Your task to perform on an android device: move an email to a new category in the gmail app Image 0: 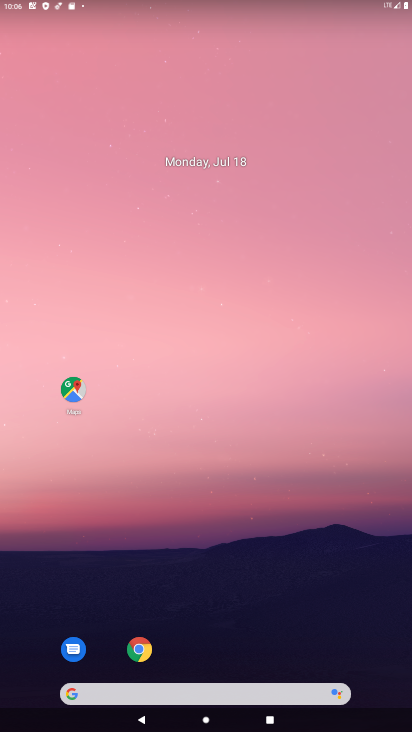
Step 0: drag from (192, 718) to (242, 5)
Your task to perform on an android device: move an email to a new category in the gmail app Image 1: 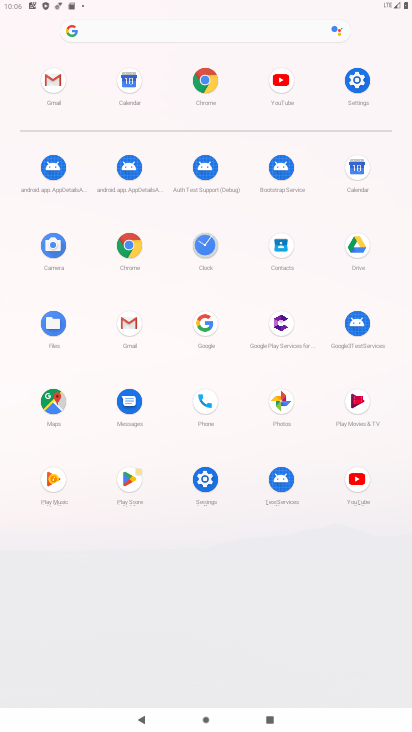
Step 1: click (58, 84)
Your task to perform on an android device: move an email to a new category in the gmail app Image 2: 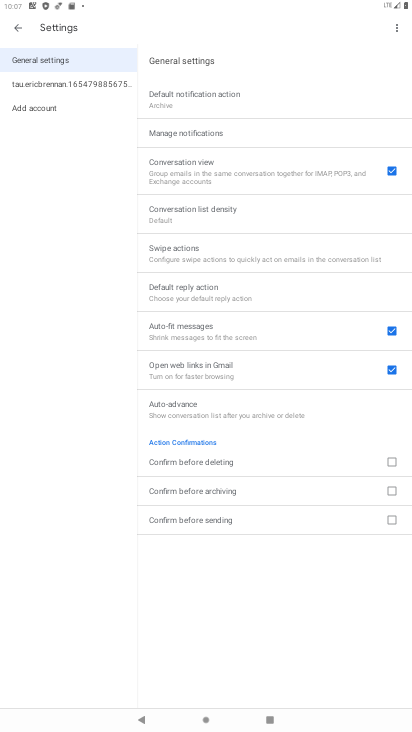
Step 2: click (16, 25)
Your task to perform on an android device: move an email to a new category in the gmail app Image 3: 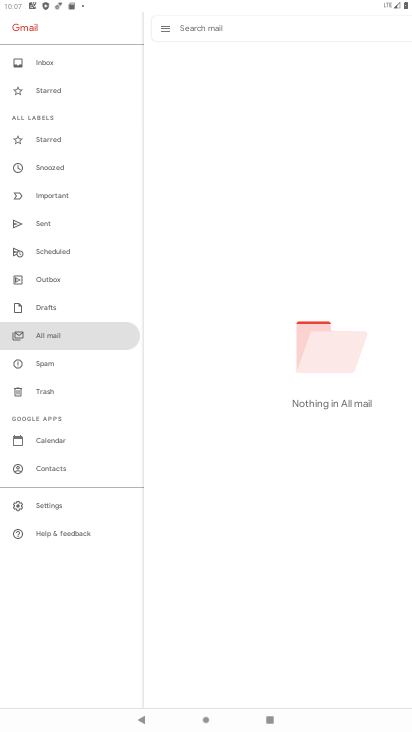
Step 3: task complete